Your task to perform on an android device: turn on bluetooth scan Image 0: 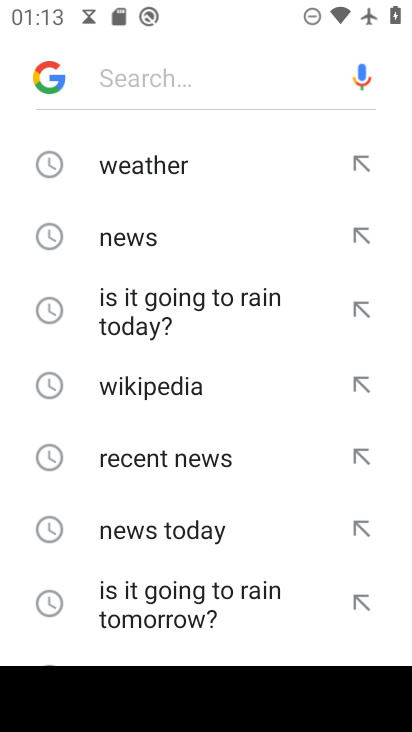
Step 0: press home button
Your task to perform on an android device: turn on bluetooth scan Image 1: 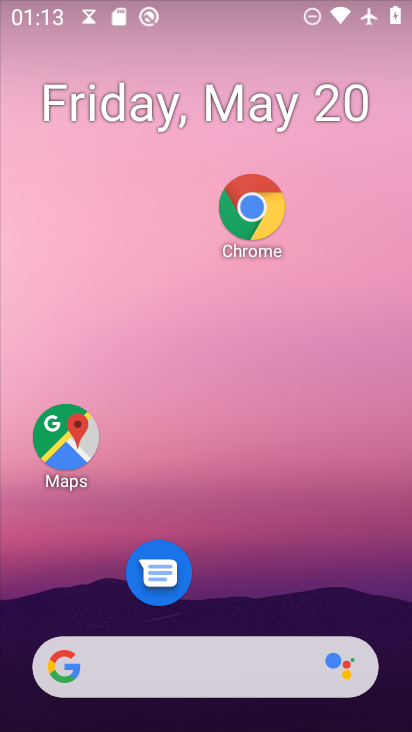
Step 1: drag from (278, 572) to (241, 27)
Your task to perform on an android device: turn on bluetooth scan Image 2: 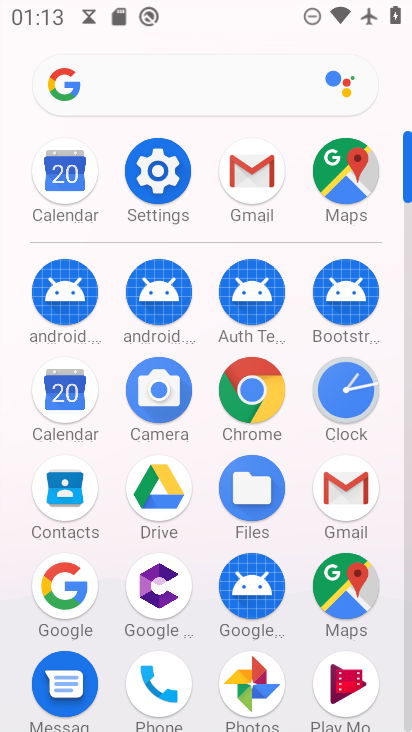
Step 2: click (147, 168)
Your task to perform on an android device: turn on bluetooth scan Image 3: 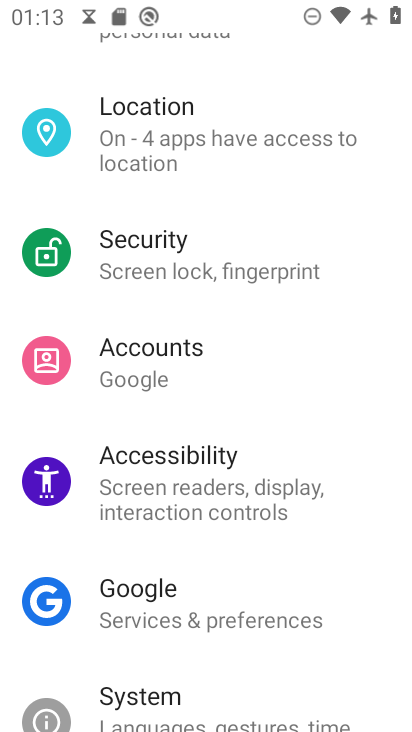
Step 3: click (198, 142)
Your task to perform on an android device: turn on bluetooth scan Image 4: 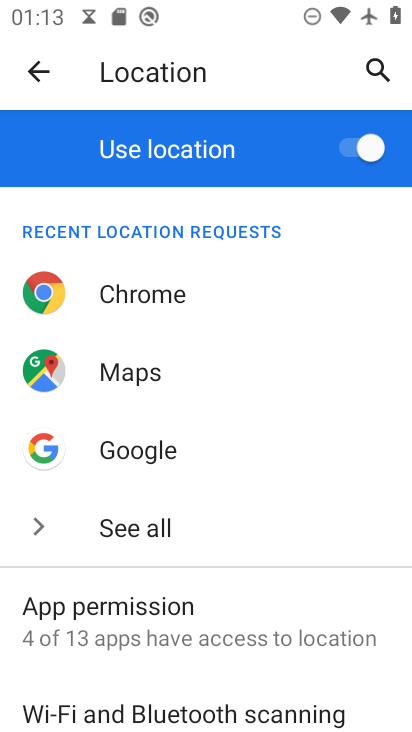
Step 4: click (209, 699)
Your task to perform on an android device: turn on bluetooth scan Image 5: 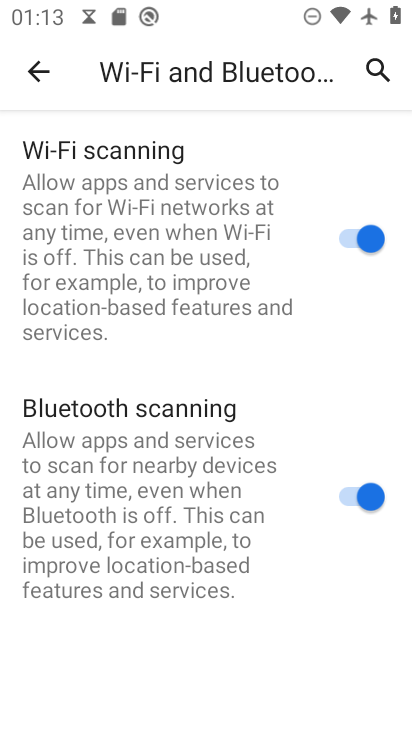
Step 5: task complete